Your task to perform on an android device: check android version Image 0: 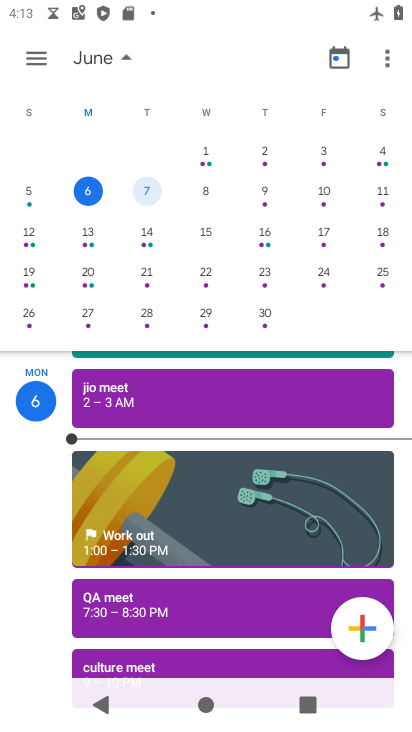
Step 0: press home button
Your task to perform on an android device: check android version Image 1: 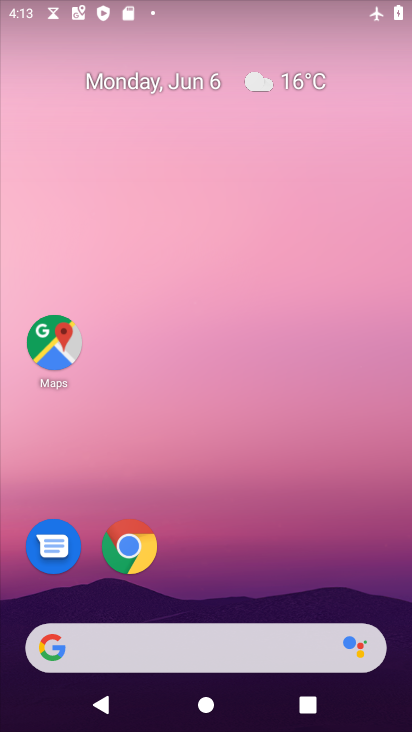
Step 1: drag from (305, 596) to (367, 70)
Your task to perform on an android device: check android version Image 2: 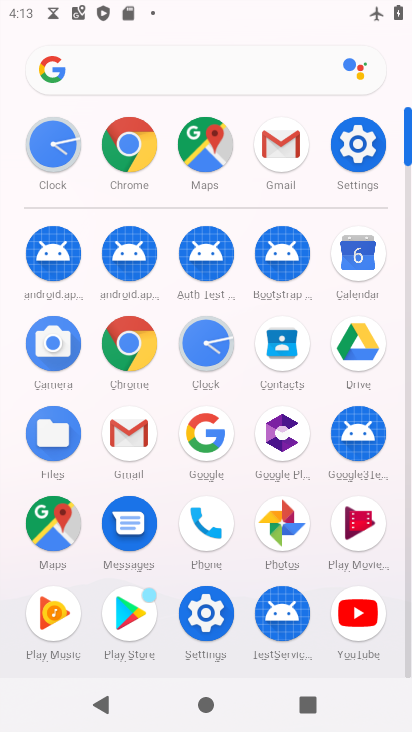
Step 2: click (355, 144)
Your task to perform on an android device: check android version Image 3: 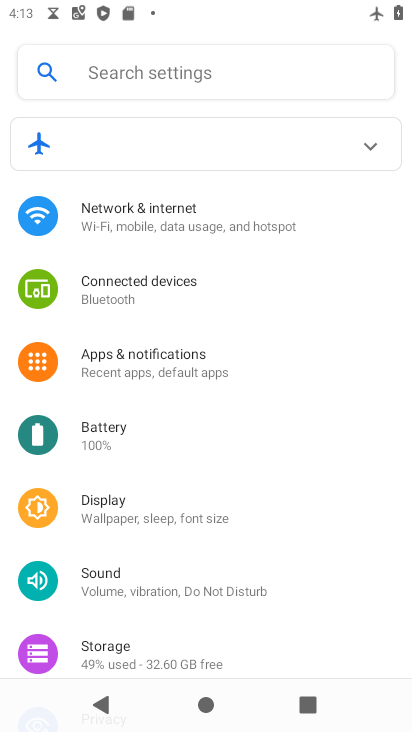
Step 3: task complete